Your task to perform on an android device: Open Amazon Image 0: 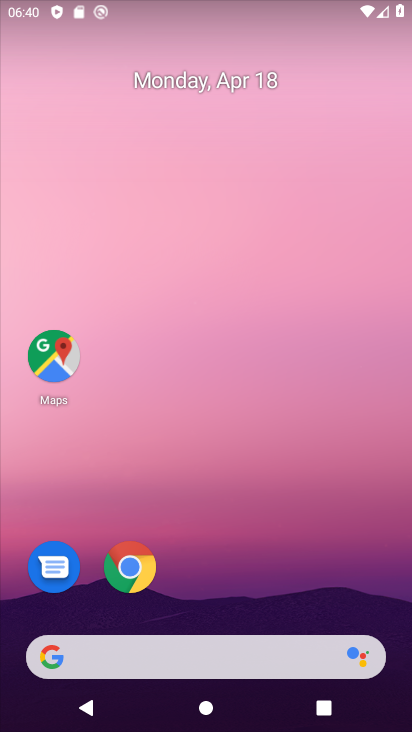
Step 0: drag from (209, 504) to (247, 37)
Your task to perform on an android device: Open Amazon Image 1: 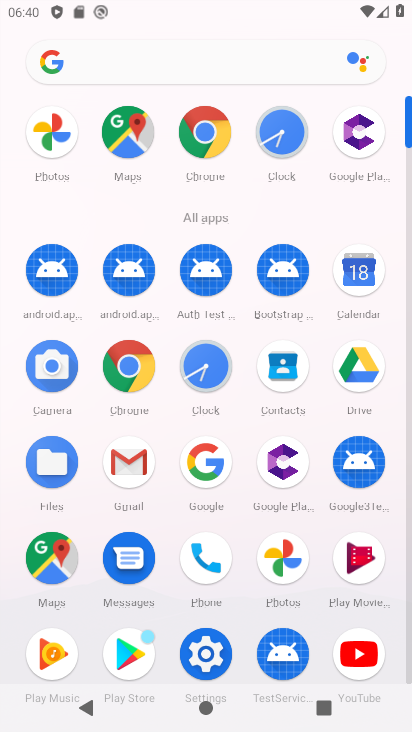
Step 1: click (196, 149)
Your task to perform on an android device: Open Amazon Image 2: 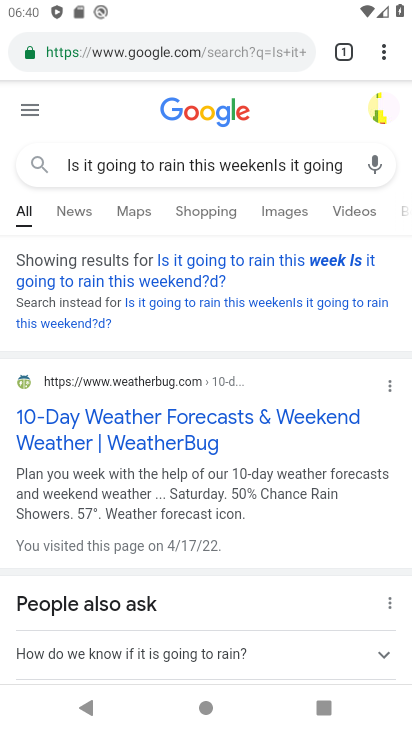
Step 2: click (221, 51)
Your task to perform on an android device: Open Amazon Image 3: 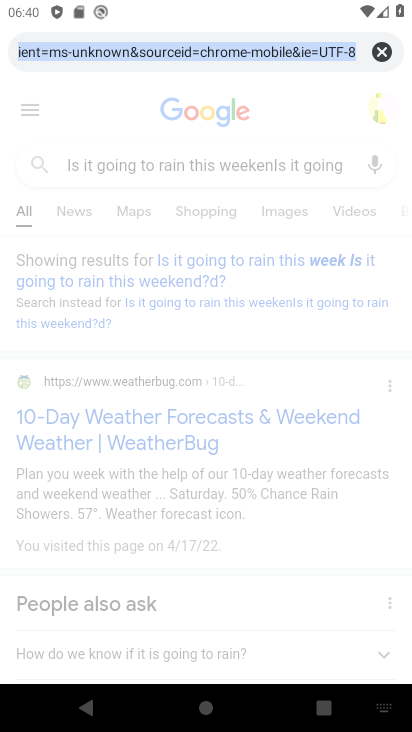
Step 3: click (221, 51)
Your task to perform on an android device: Open Amazon Image 4: 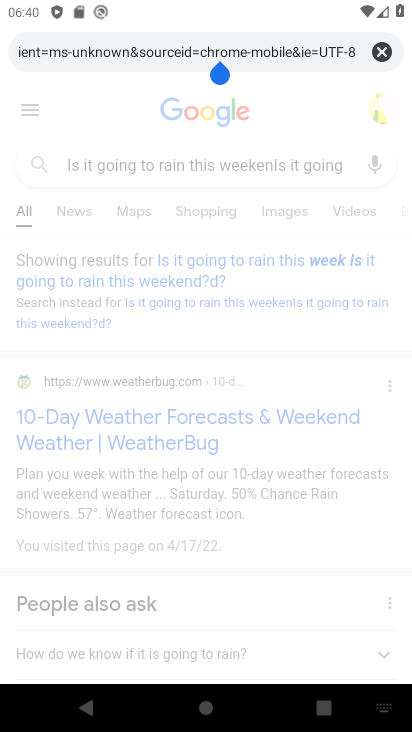
Step 4: click (376, 50)
Your task to perform on an android device: Open Amazon Image 5: 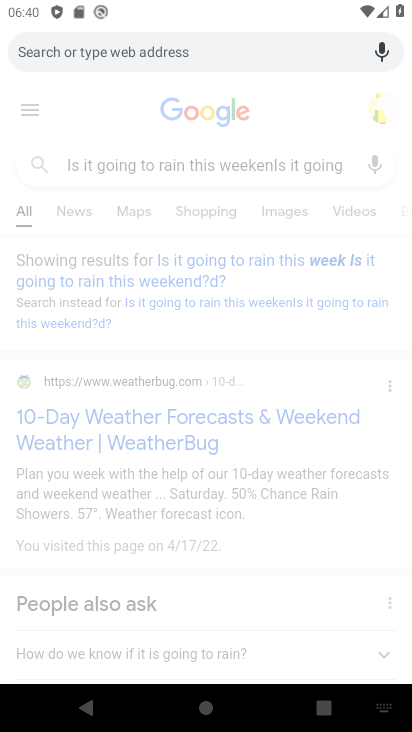
Step 5: click (311, 51)
Your task to perform on an android device: Open Amazon Image 6: 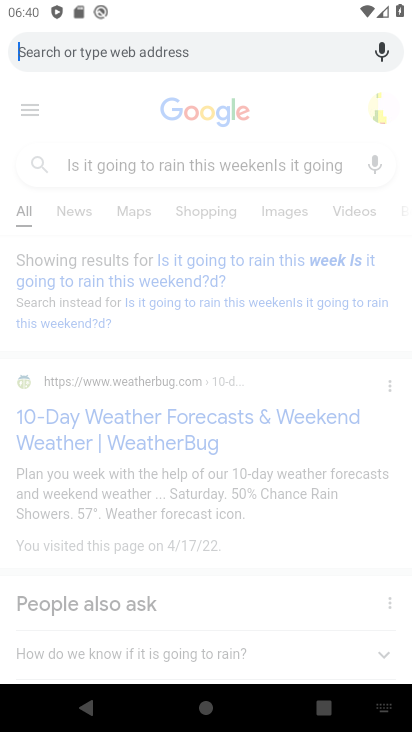
Step 6: click (311, 51)
Your task to perform on an android device: Open Amazon Image 7: 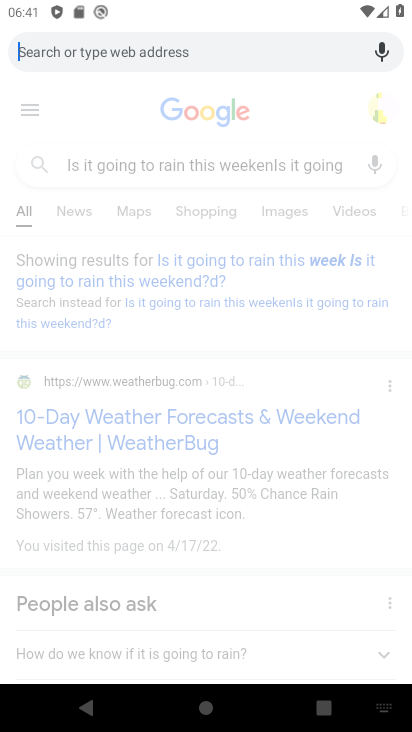
Step 7: type "Amazon"
Your task to perform on an android device: Open Amazon Image 8: 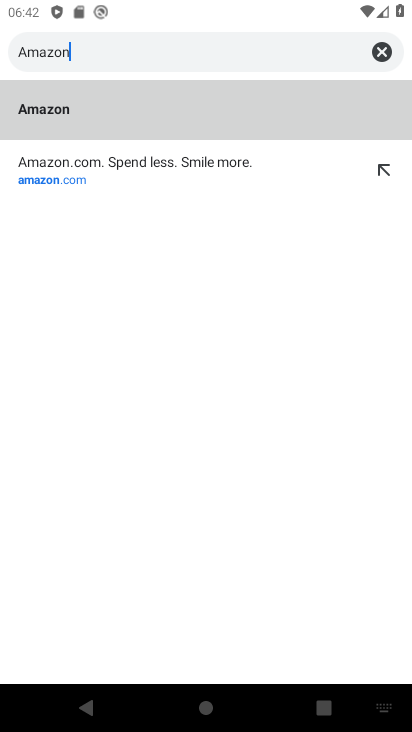
Step 8: click (151, 119)
Your task to perform on an android device: Open Amazon Image 9: 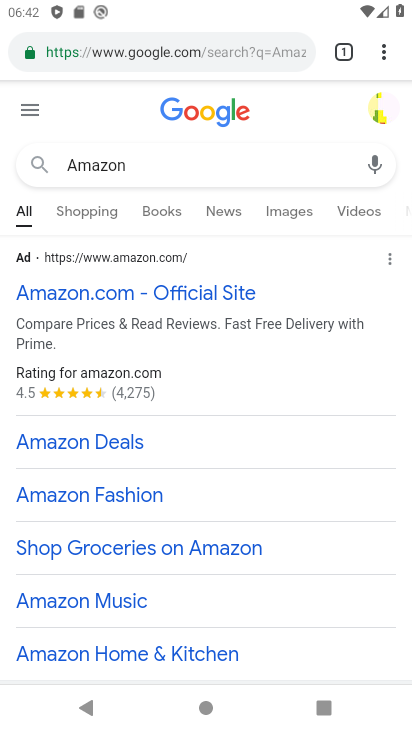
Step 9: click (187, 303)
Your task to perform on an android device: Open Amazon Image 10: 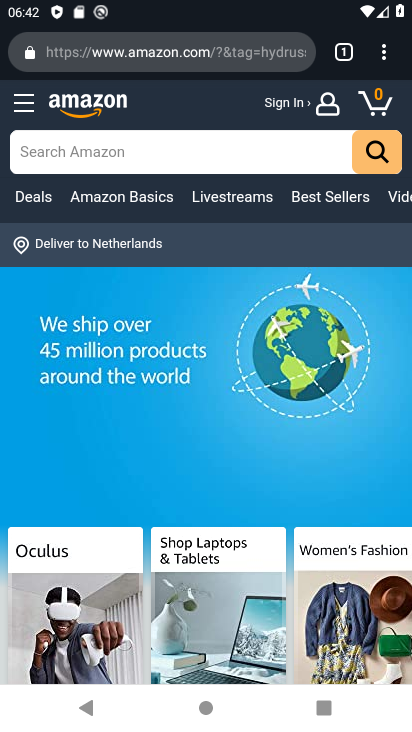
Step 10: task complete